Your task to perform on an android device: see sites visited before in the chrome app Image 0: 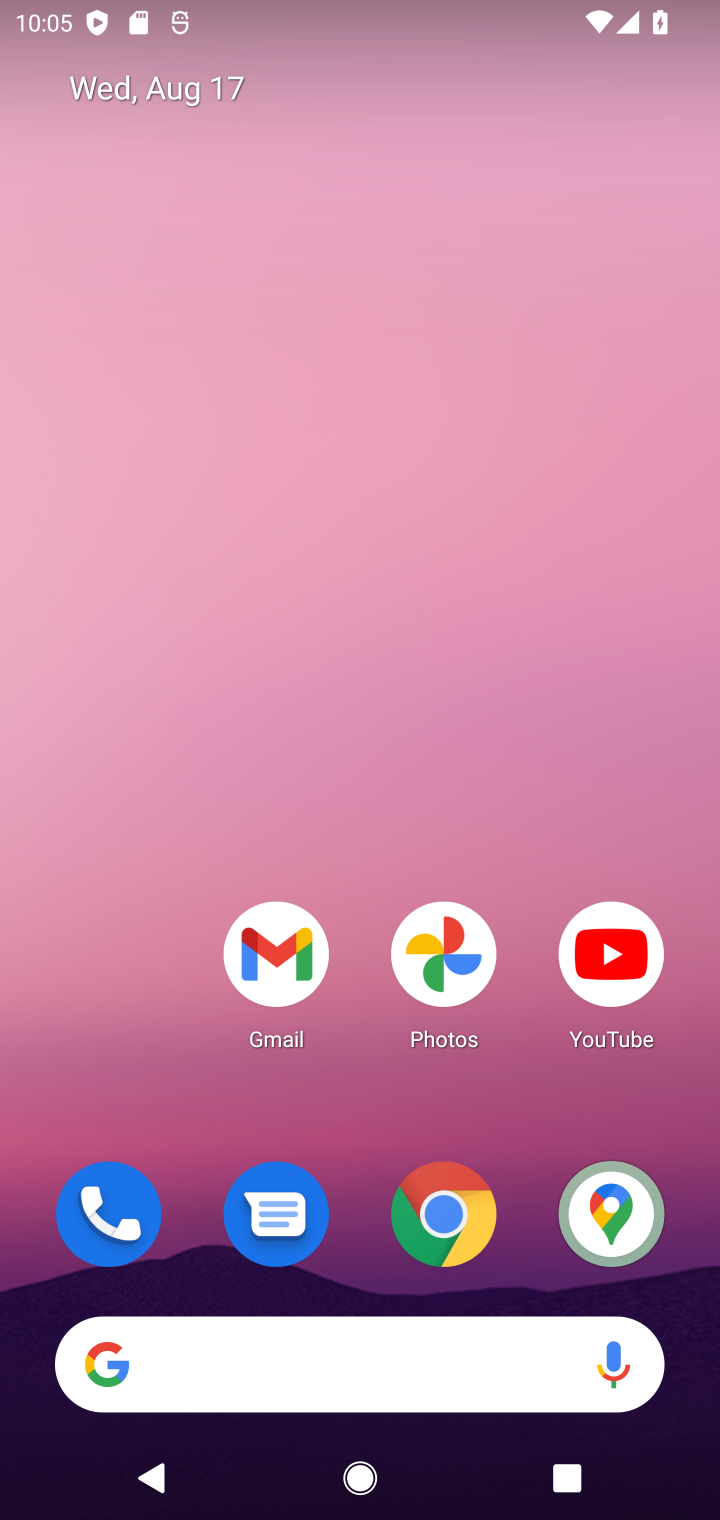
Step 0: click (441, 1222)
Your task to perform on an android device: see sites visited before in the chrome app Image 1: 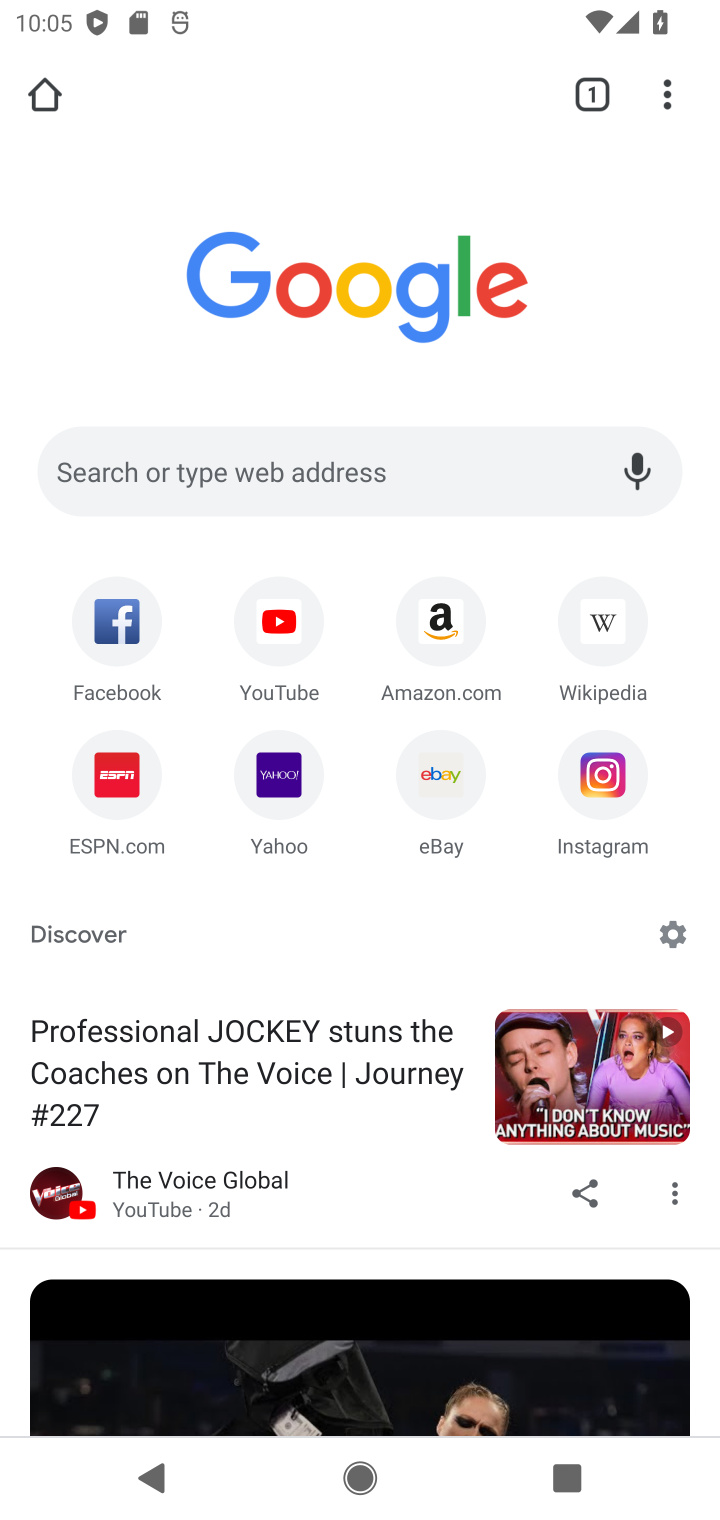
Step 1: click (696, 98)
Your task to perform on an android device: see sites visited before in the chrome app Image 2: 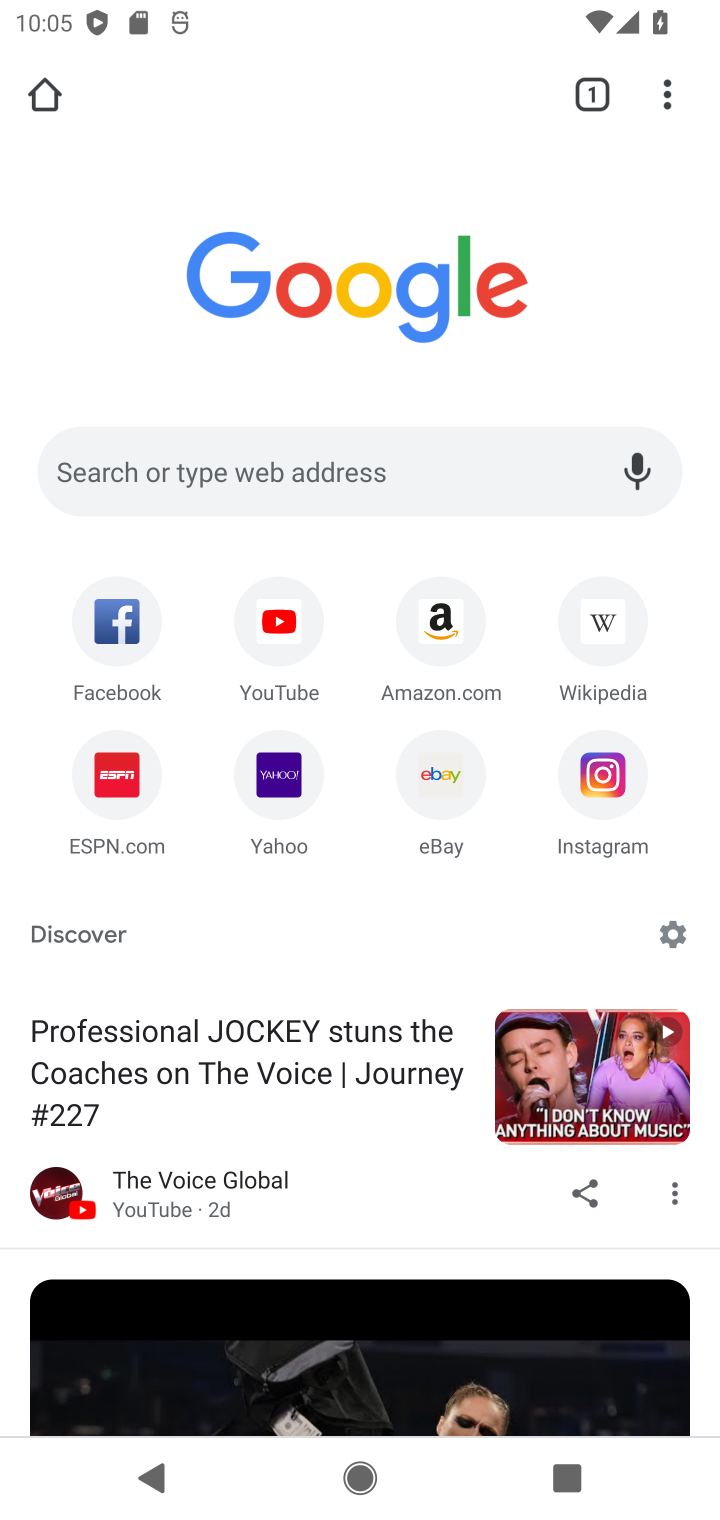
Step 2: click (705, 99)
Your task to perform on an android device: see sites visited before in the chrome app Image 3: 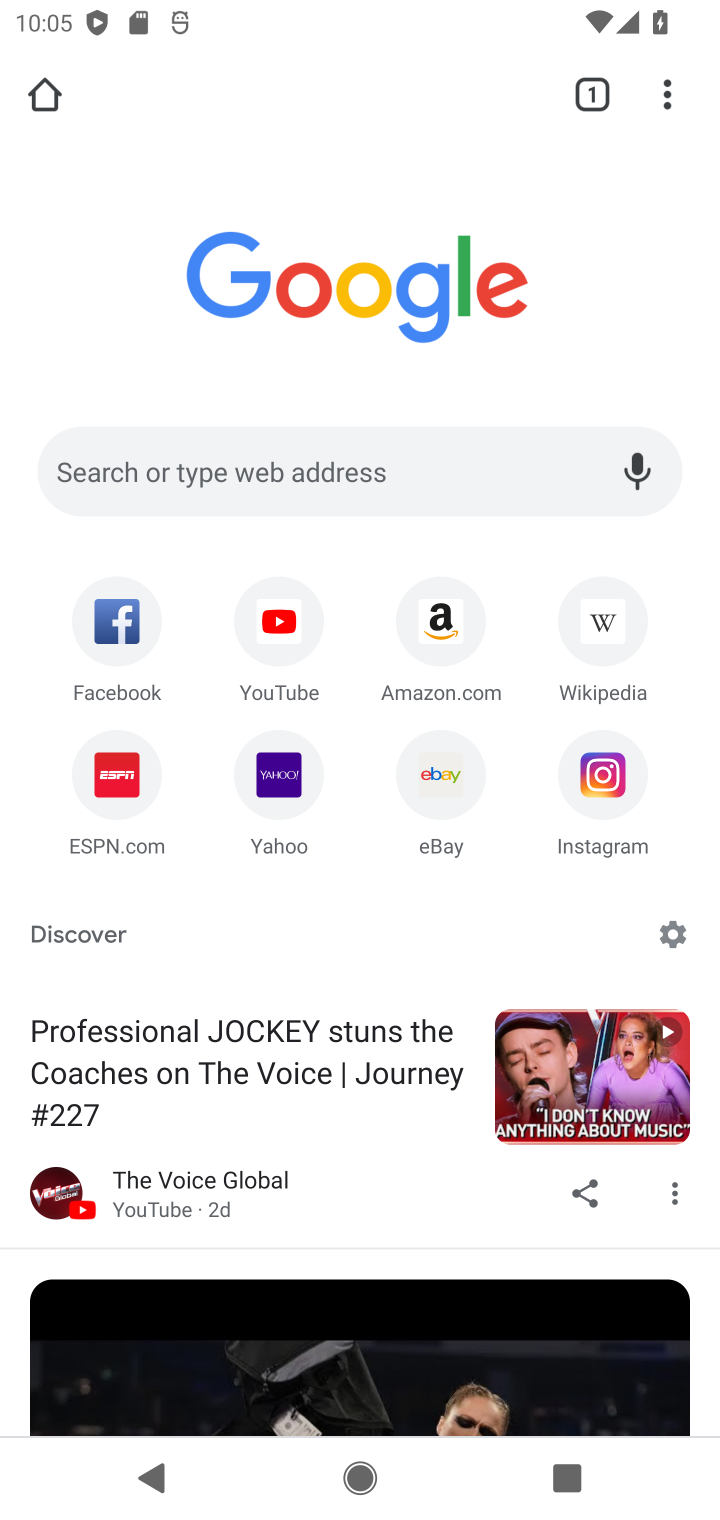
Step 3: task complete